Your task to perform on an android device: Go to sound settings Image 0: 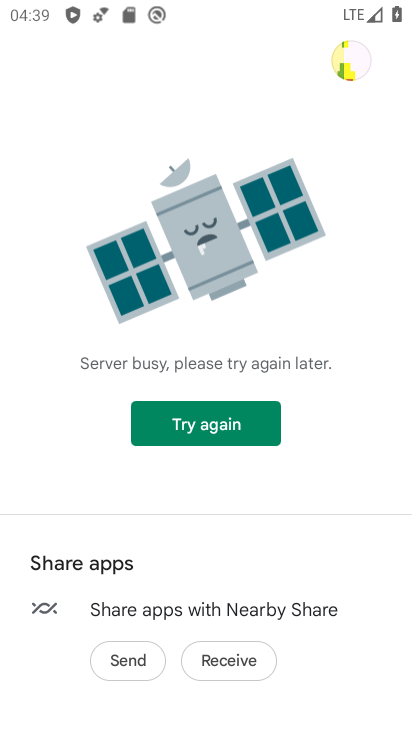
Step 0: press home button
Your task to perform on an android device: Go to sound settings Image 1: 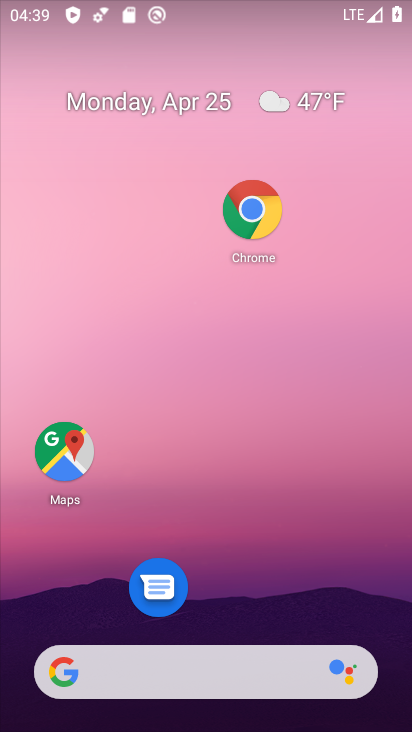
Step 1: drag from (399, 638) to (356, 125)
Your task to perform on an android device: Go to sound settings Image 2: 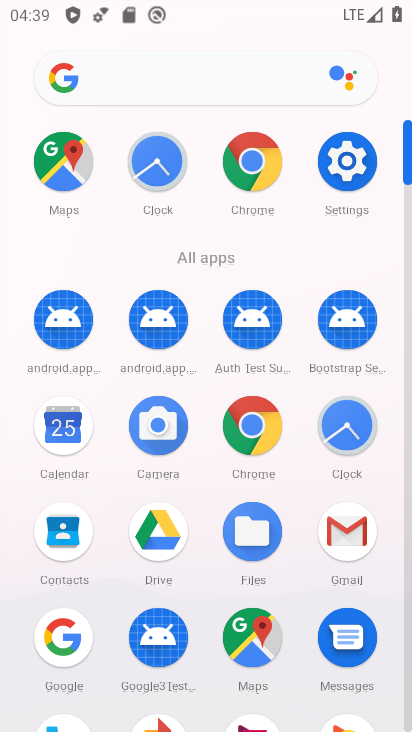
Step 2: click (356, 161)
Your task to perform on an android device: Go to sound settings Image 3: 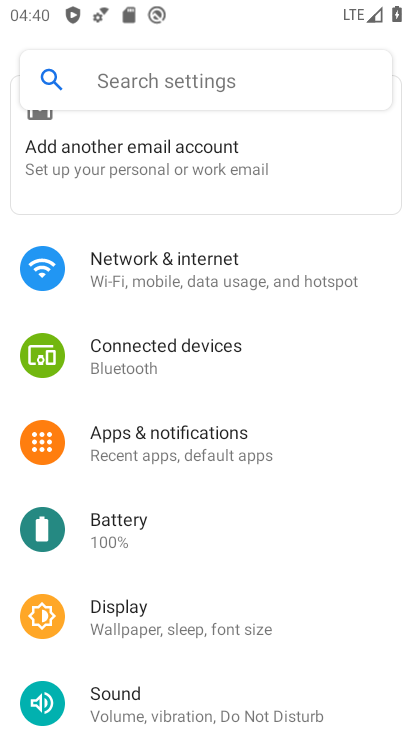
Step 3: click (224, 696)
Your task to perform on an android device: Go to sound settings Image 4: 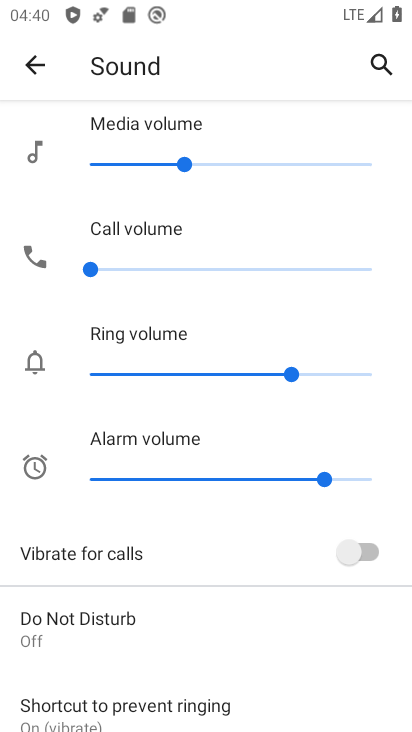
Step 4: task complete